Your task to perform on an android device: Play the last video I watched on Youtube Image 0: 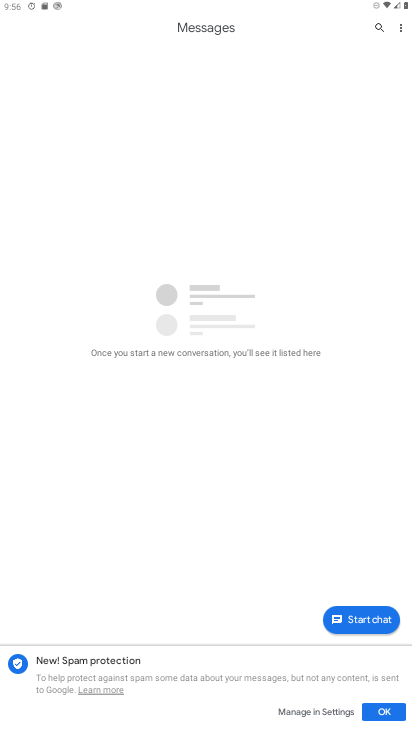
Step 0: press home button
Your task to perform on an android device: Play the last video I watched on Youtube Image 1: 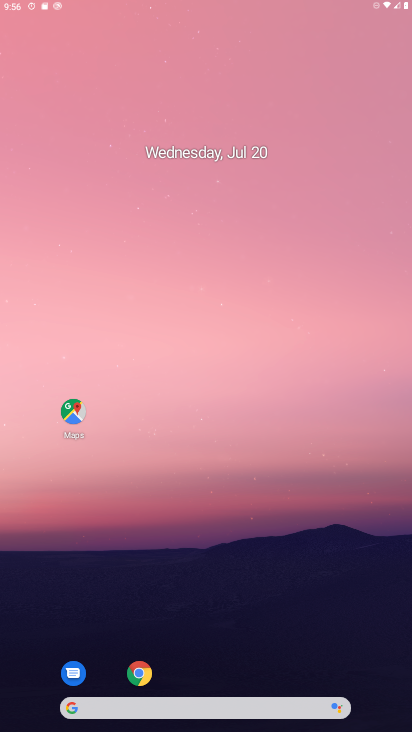
Step 1: drag from (380, 674) to (169, 40)
Your task to perform on an android device: Play the last video I watched on Youtube Image 2: 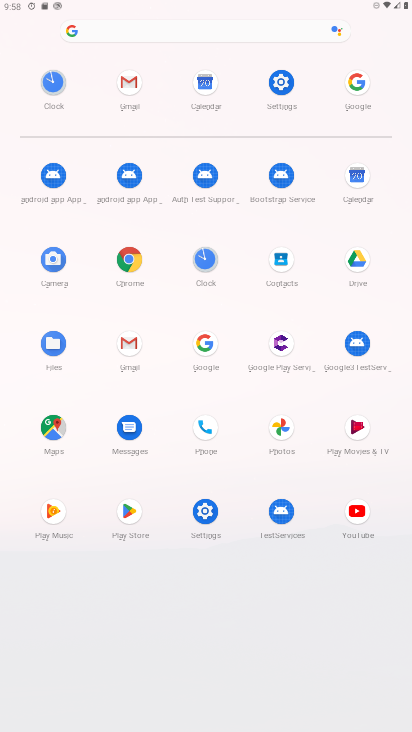
Step 2: click (363, 501)
Your task to perform on an android device: Play the last video I watched on Youtube Image 3: 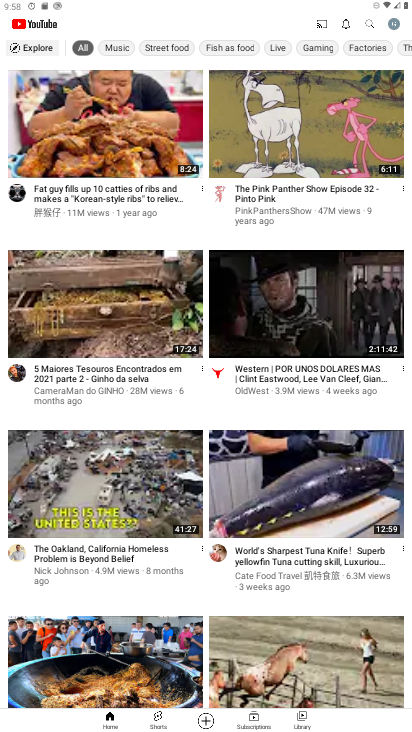
Step 3: task complete